Your task to perform on an android device: uninstall "Truecaller" Image 0: 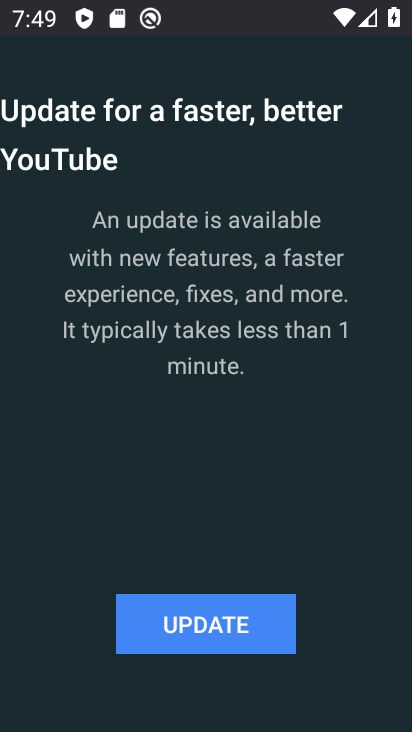
Step 0: task impossible